Your task to perform on an android device: delete browsing data in the chrome app Image 0: 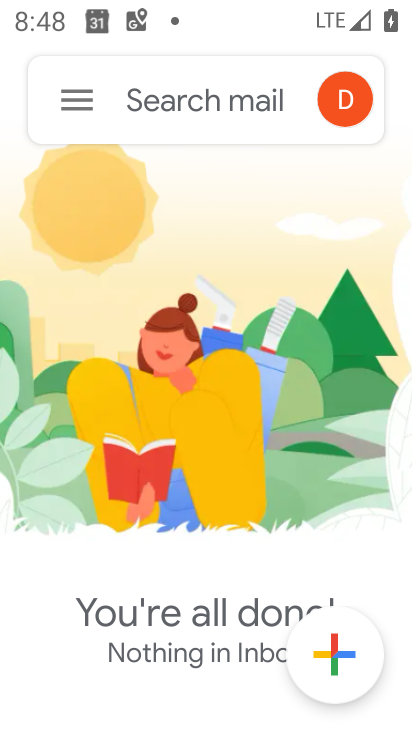
Step 0: press home button
Your task to perform on an android device: delete browsing data in the chrome app Image 1: 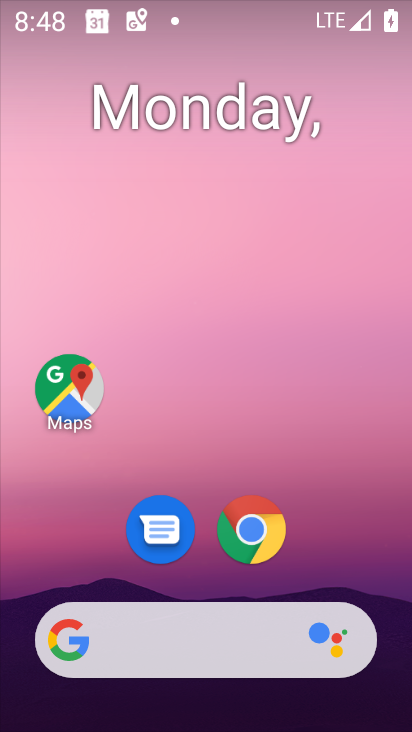
Step 1: click (244, 521)
Your task to perform on an android device: delete browsing data in the chrome app Image 2: 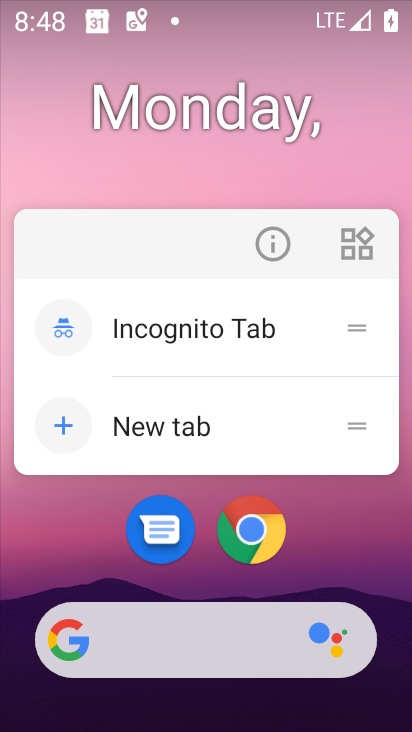
Step 2: click (262, 253)
Your task to perform on an android device: delete browsing data in the chrome app Image 3: 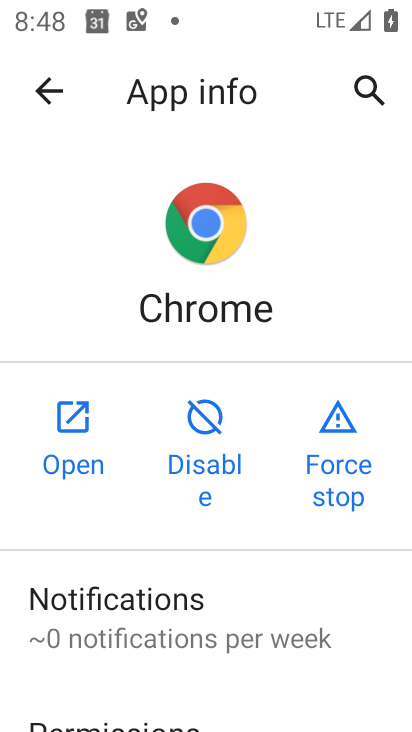
Step 3: click (75, 422)
Your task to perform on an android device: delete browsing data in the chrome app Image 4: 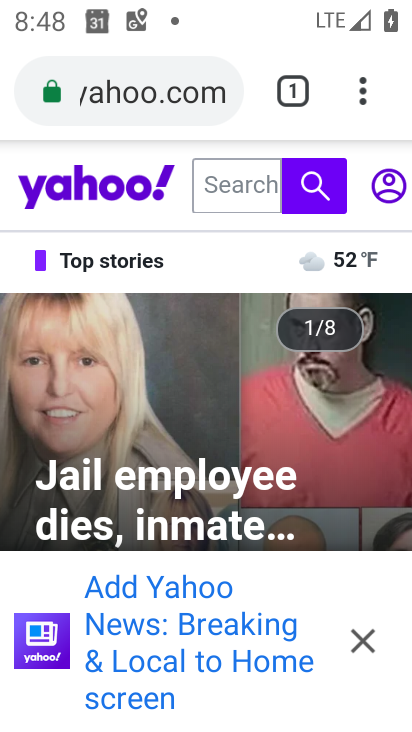
Step 4: click (356, 89)
Your task to perform on an android device: delete browsing data in the chrome app Image 5: 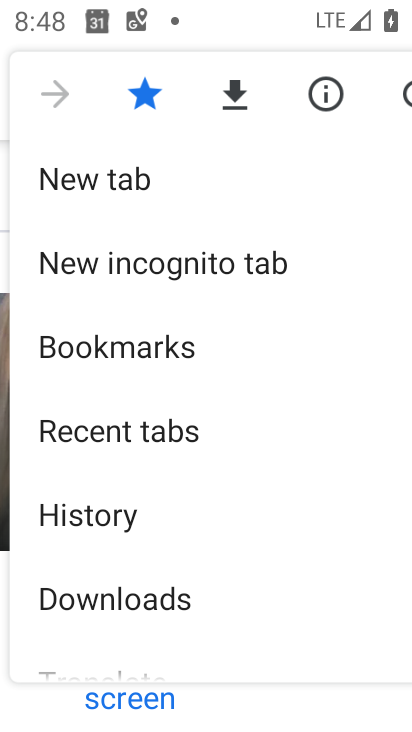
Step 5: click (108, 519)
Your task to perform on an android device: delete browsing data in the chrome app Image 6: 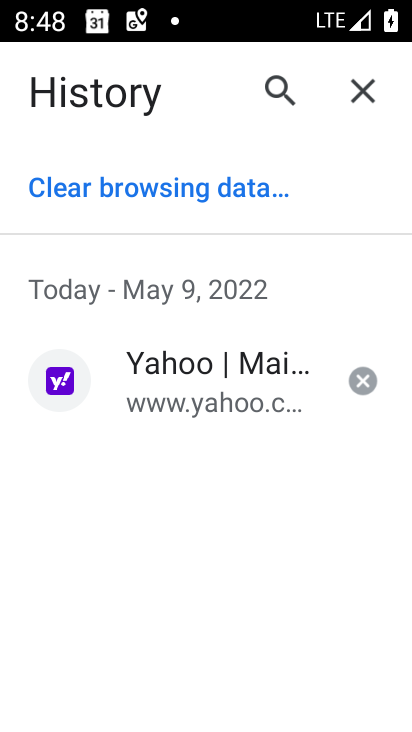
Step 6: click (183, 179)
Your task to perform on an android device: delete browsing data in the chrome app Image 7: 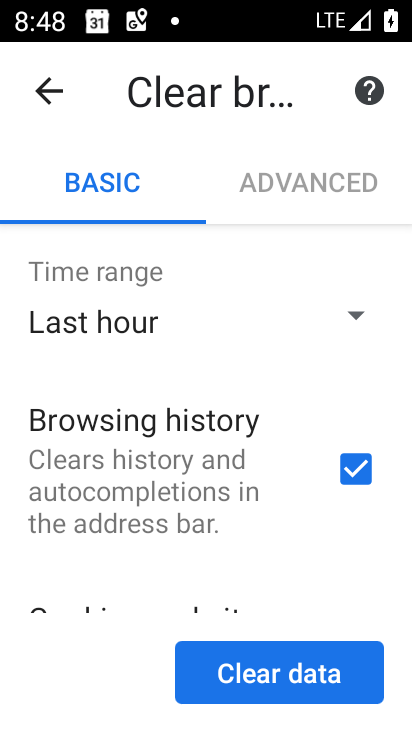
Step 7: click (279, 678)
Your task to perform on an android device: delete browsing data in the chrome app Image 8: 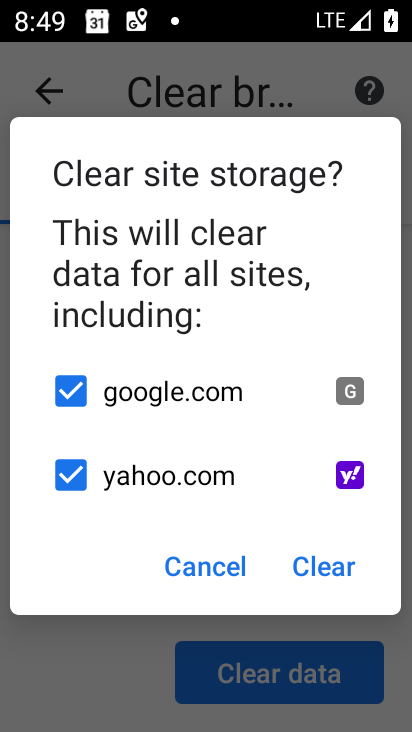
Step 8: task complete